Your task to perform on an android device: set the timer Image 0: 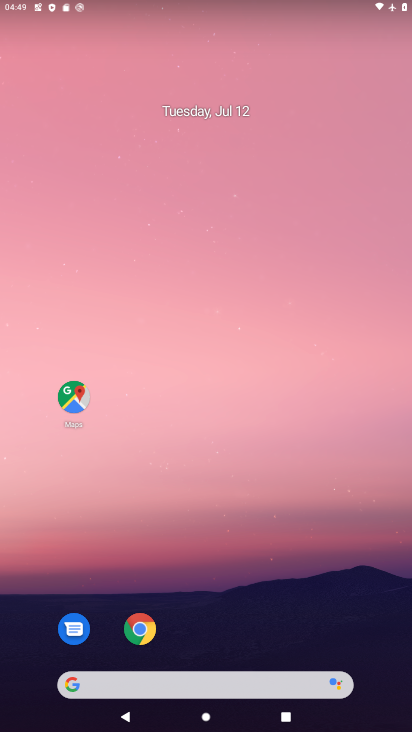
Step 0: drag from (287, 512) to (195, 13)
Your task to perform on an android device: set the timer Image 1: 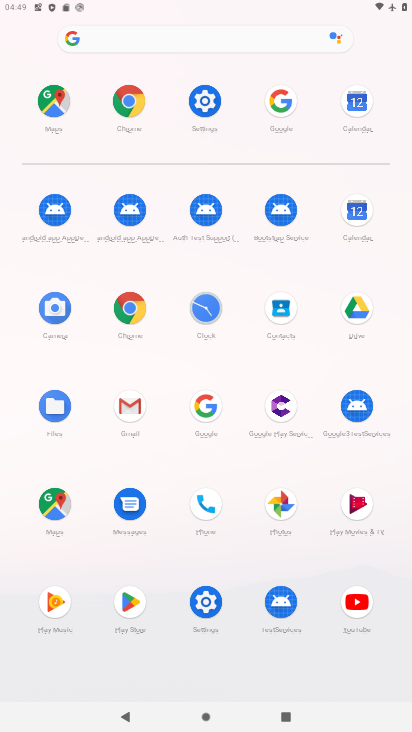
Step 1: click (206, 309)
Your task to perform on an android device: set the timer Image 2: 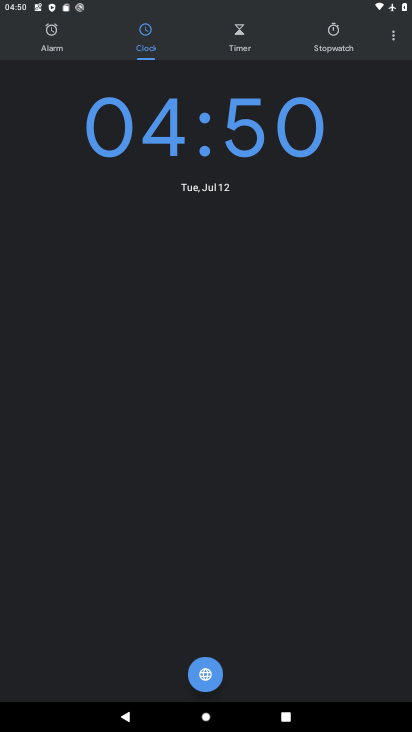
Step 2: click (250, 39)
Your task to perform on an android device: set the timer Image 3: 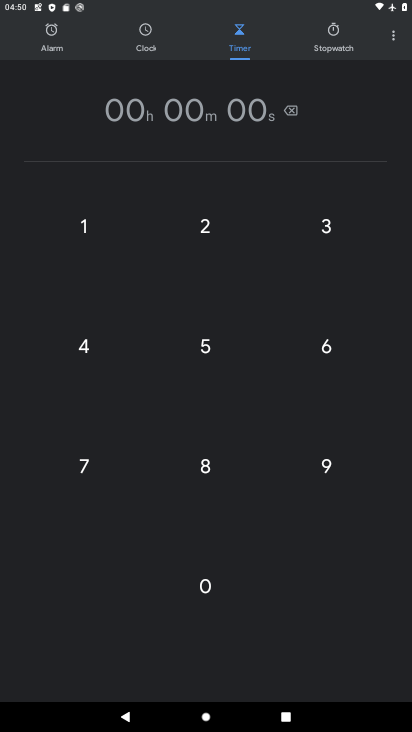
Step 3: click (200, 349)
Your task to perform on an android device: set the timer Image 4: 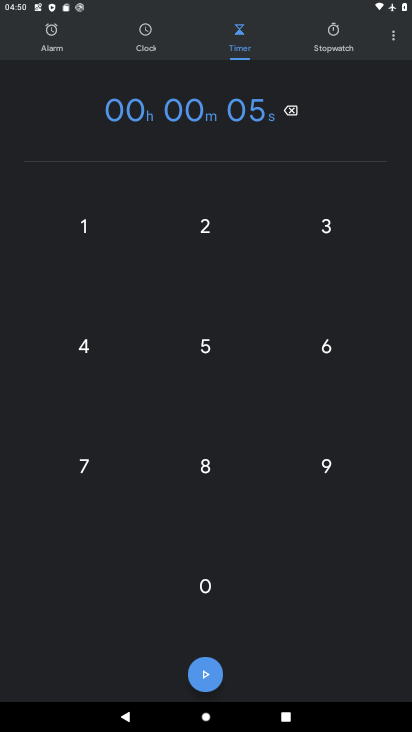
Step 4: task complete